Your task to perform on an android device: turn off notifications in google photos Image 0: 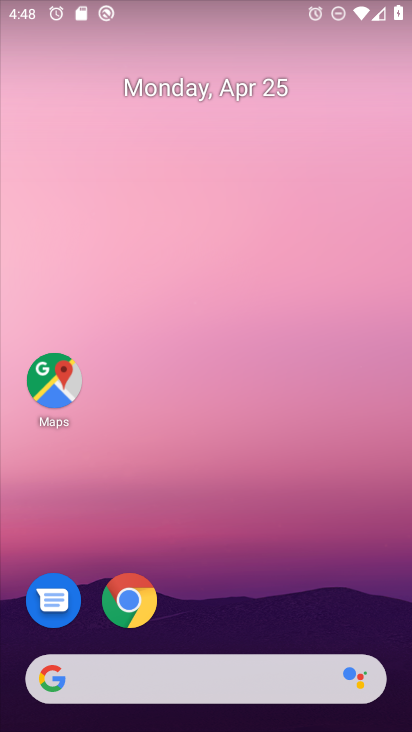
Step 0: drag from (253, 611) to (125, 0)
Your task to perform on an android device: turn off notifications in google photos Image 1: 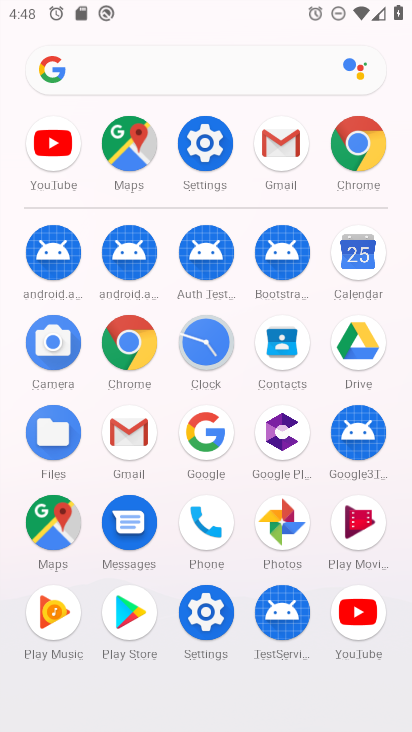
Step 1: drag from (14, 508) to (14, 260)
Your task to perform on an android device: turn off notifications in google photos Image 2: 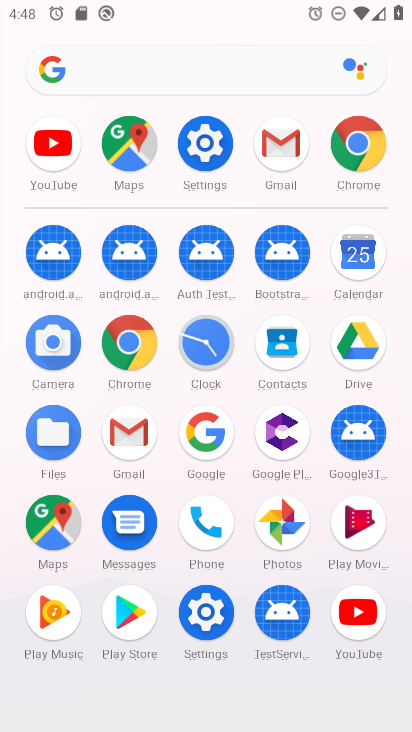
Step 2: click (279, 520)
Your task to perform on an android device: turn off notifications in google photos Image 3: 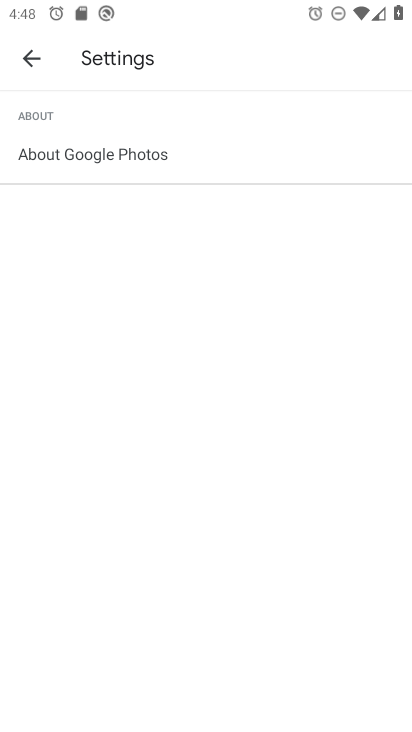
Step 3: click (20, 55)
Your task to perform on an android device: turn off notifications in google photos Image 4: 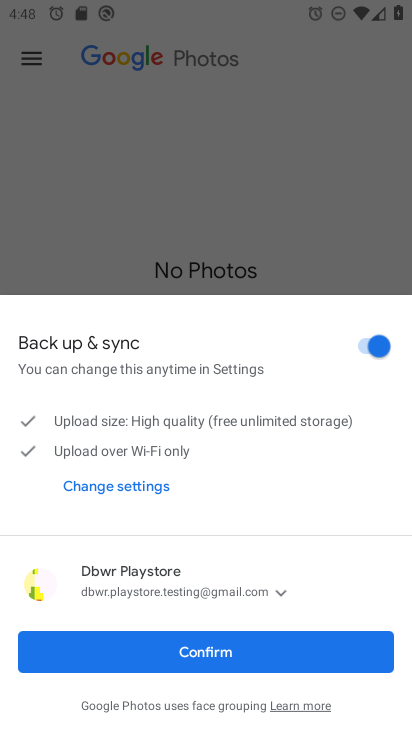
Step 4: click (225, 654)
Your task to perform on an android device: turn off notifications in google photos Image 5: 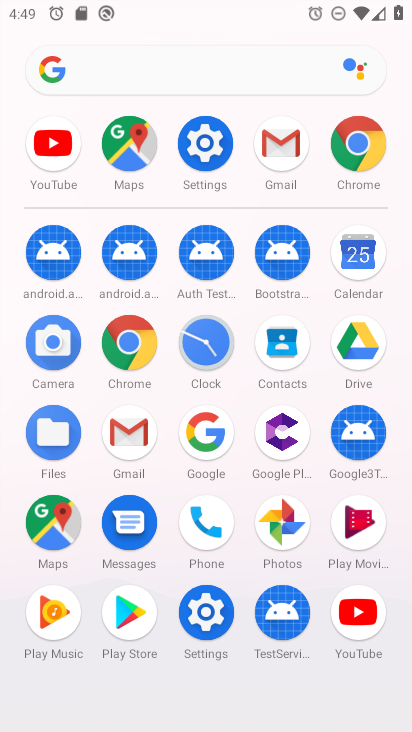
Step 5: click (282, 517)
Your task to perform on an android device: turn off notifications in google photos Image 6: 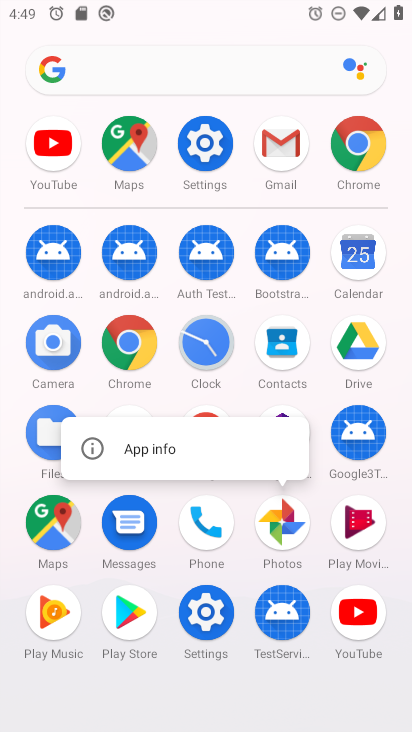
Step 6: click (282, 517)
Your task to perform on an android device: turn off notifications in google photos Image 7: 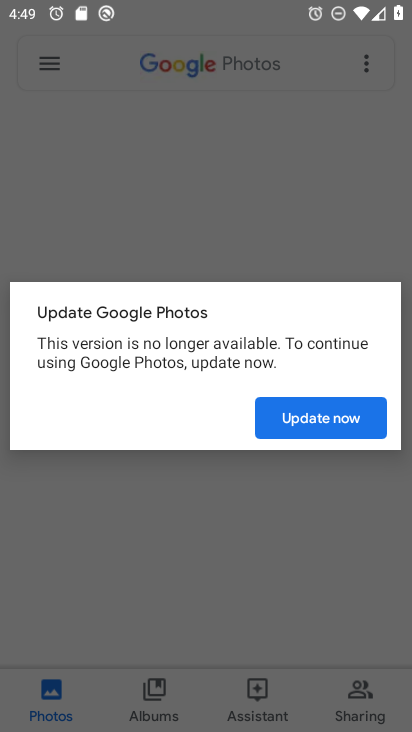
Step 7: click (295, 417)
Your task to perform on an android device: turn off notifications in google photos Image 8: 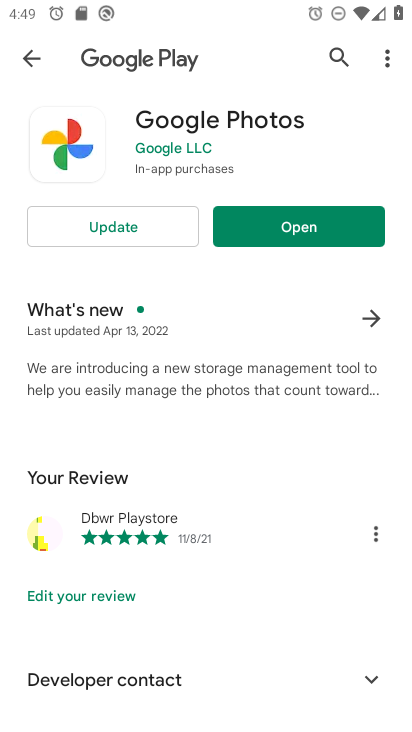
Step 8: click (142, 231)
Your task to perform on an android device: turn off notifications in google photos Image 9: 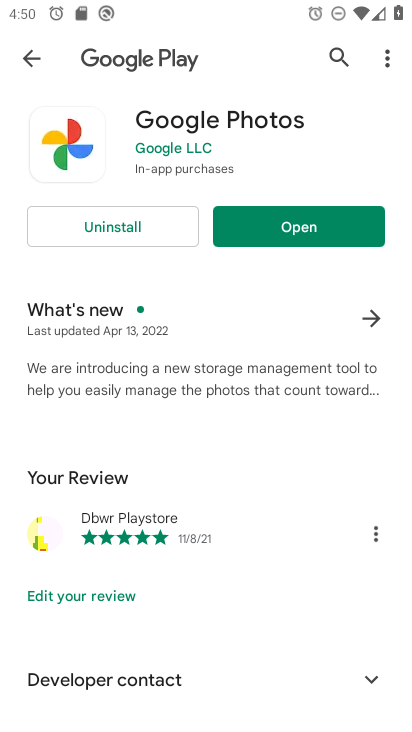
Step 9: click (258, 226)
Your task to perform on an android device: turn off notifications in google photos Image 10: 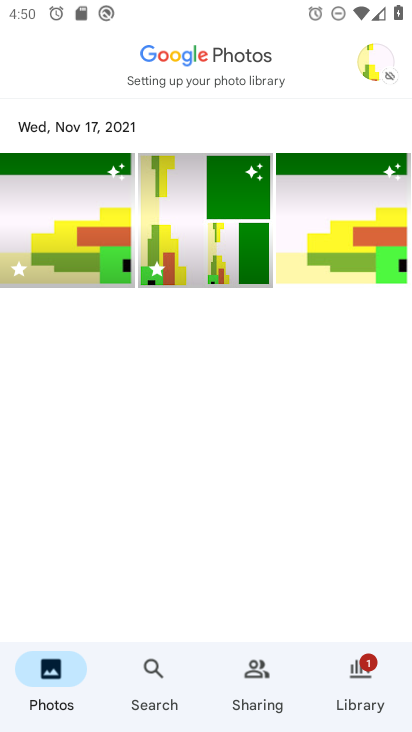
Step 10: click (373, 66)
Your task to perform on an android device: turn off notifications in google photos Image 11: 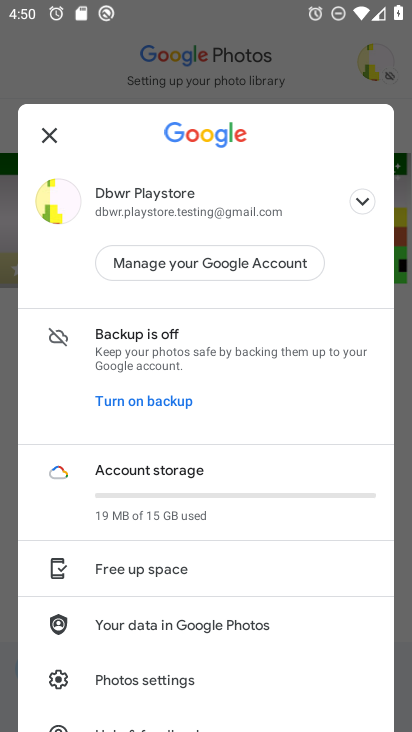
Step 11: click (133, 676)
Your task to perform on an android device: turn off notifications in google photos Image 12: 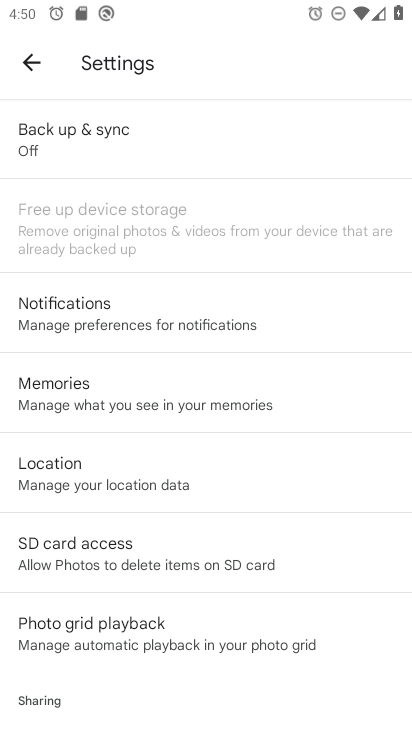
Step 12: click (123, 311)
Your task to perform on an android device: turn off notifications in google photos Image 13: 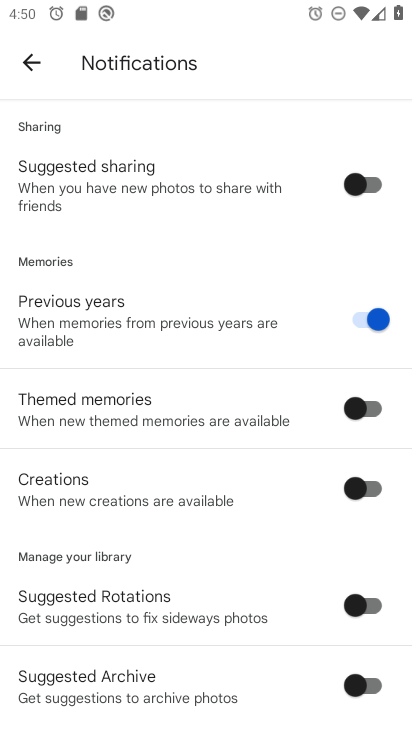
Step 13: drag from (128, 540) to (150, 165)
Your task to perform on an android device: turn off notifications in google photos Image 14: 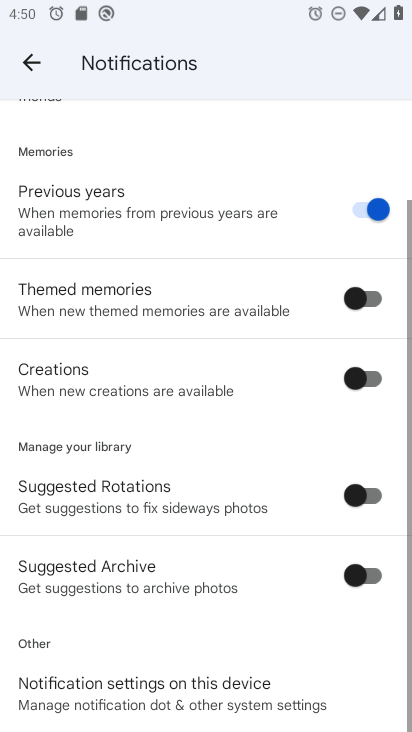
Step 14: drag from (101, 583) to (123, 289)
Your task to perform on an android device: turn off notifications in google photos Image 15: 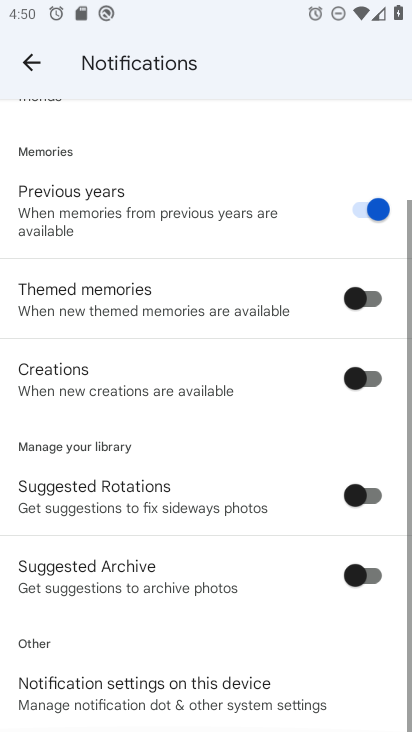
Step 15: click (129, 685)
Your task to perform on an android device: turn off notifications in google photos Image 16: 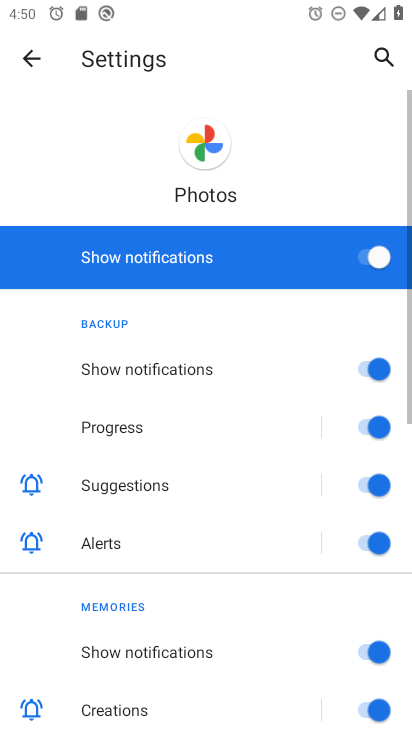
Step 16: click (365, 257)
Your task to perform on an android device: turn off notifications in google photos Image 17: 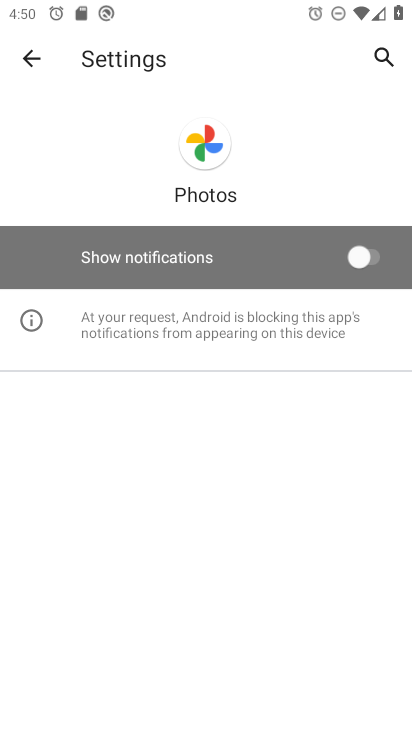
Step 17: task complete